Your task to perform on an android device: Open calendar and show me the third week of next month Image 0: 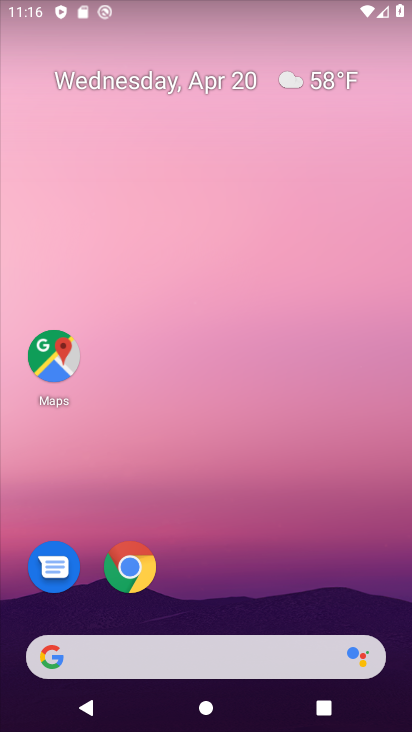
Step 0: drag from (363, 592) to (331, 23)
Your task to perform on an android device: Open calendar and show me the third week of next month Image 1: 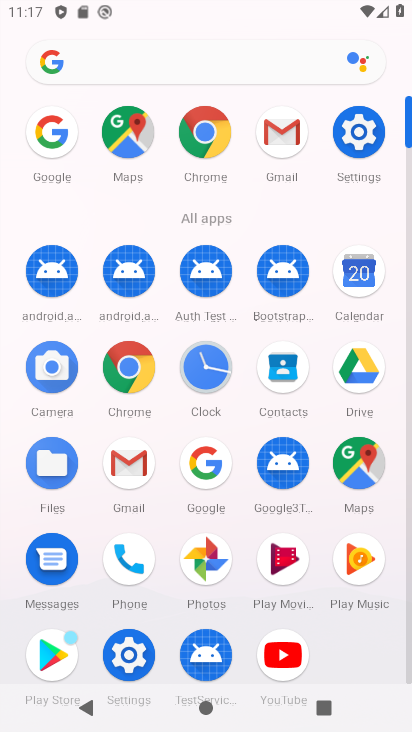
Step 1: click (359, 285)
Your task to perform on an android device: Open calendar and show me the third week of next month Image 2: 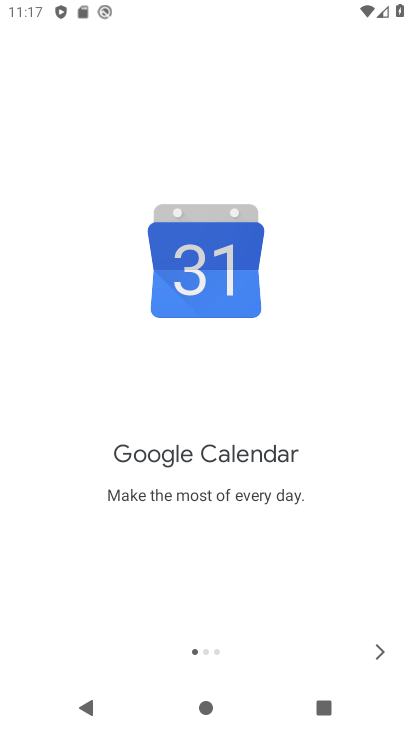
Step 2: click (383, 650)
Your task to perform on an android device: Open calendar and show me the third week of next month Image 3: 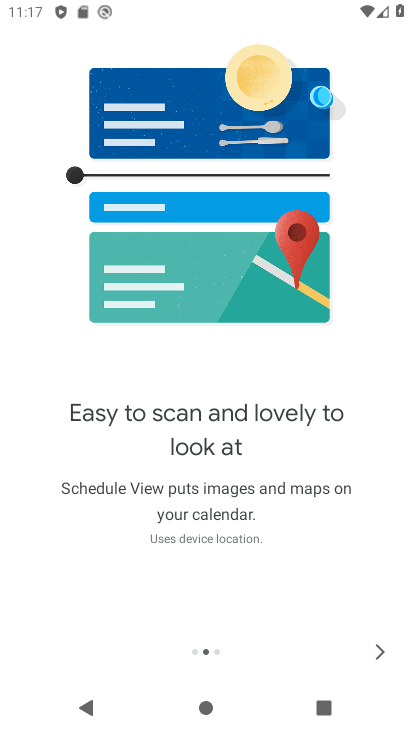
Step 3: click (383, 650)
Your task to perform on an android device: Open calendar and show me the third week of next month Image 4: 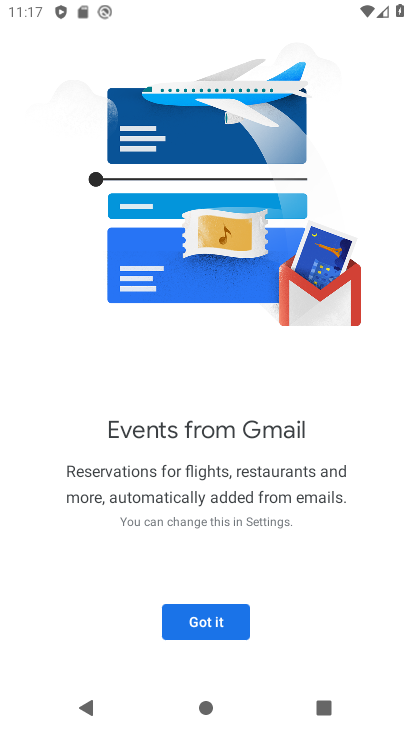
Step 4: click (236, 633)
Your task to perform on an android device: Open calendar and show me the third week of next month Image 5: 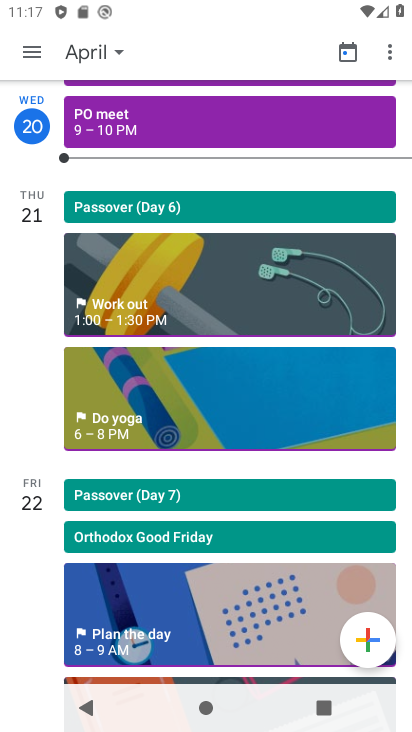
Step 5: click (42, 58)
Your task to perform on an android device: Open calendar and show me the third week of next month Image 6: 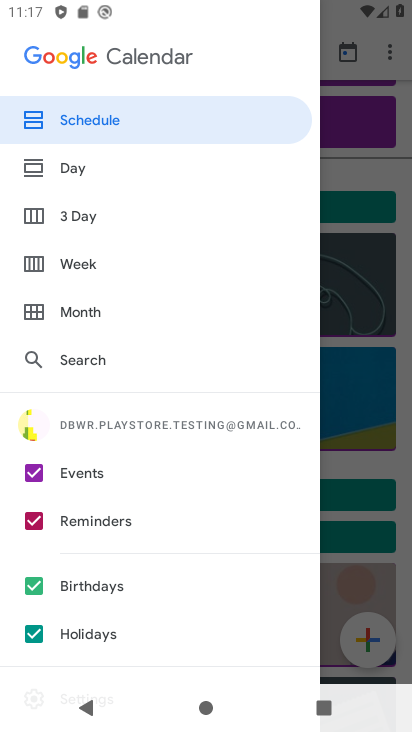
Step 6: click (182, 269)
Your task to perform on an android device: Open calendar and show me the third week of next month Image 7: 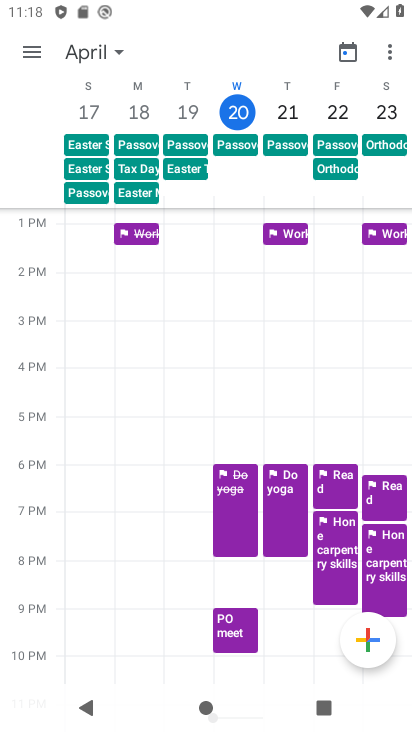
Step 7: click (120, 52)
Your task to perform on an android device: Open calendar and show me the third week of next month Image 8: 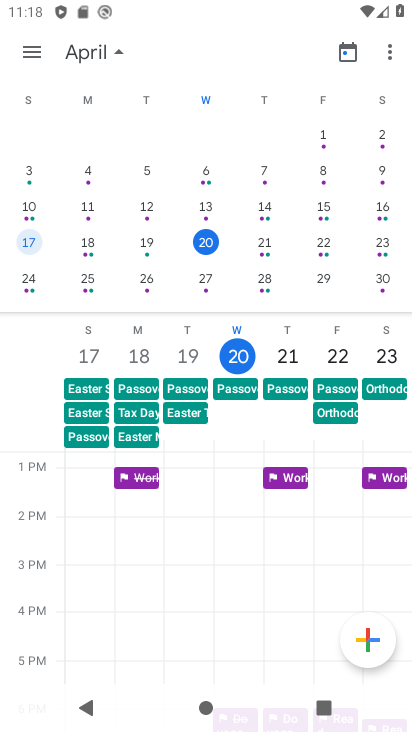
Step 8: drag from (390, 258) to (33, 265)
Your task to perform on an android device: Open calendar and show me the third week of next month Image 9: 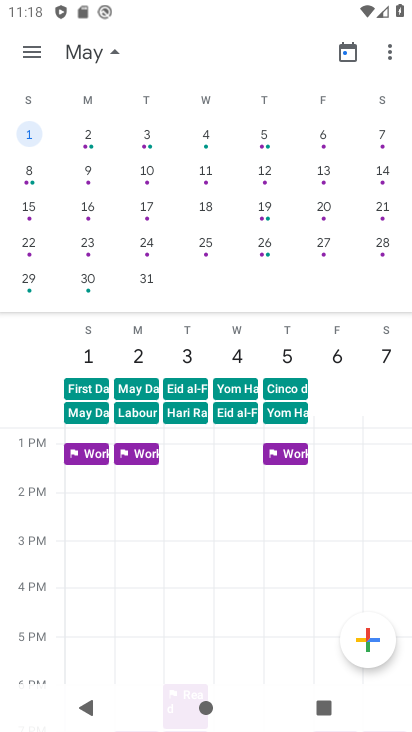
Step 9: click (210, 208)
Your task to perform on an android device: Open calendar and show me the third week of next month Image 10: 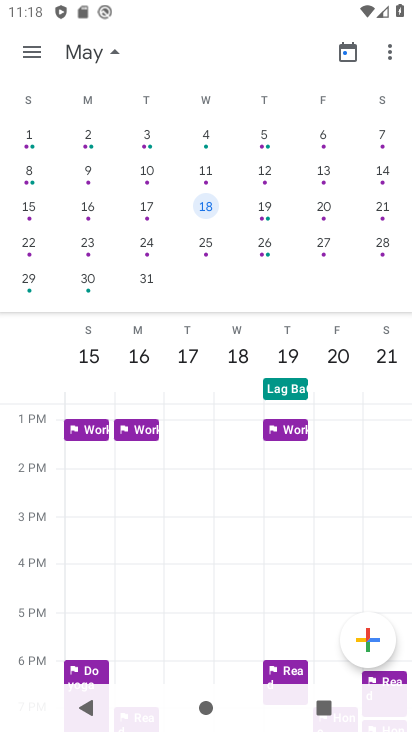
Step 10: task complete